Your task to perform on an android device: Open calendar and show me the fourth week of next month Image 0: 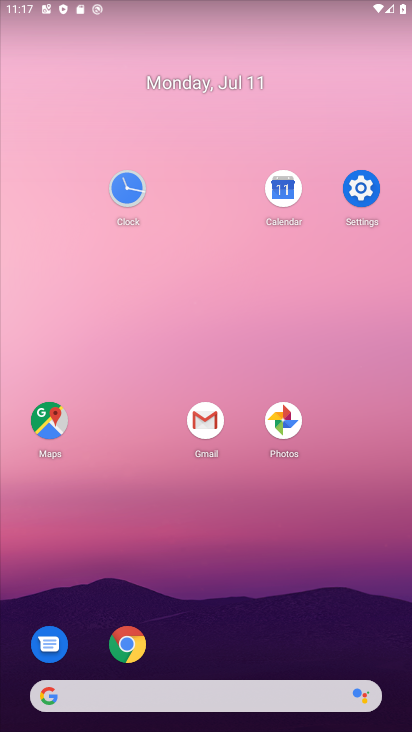
Step 0: click (288, 187)
Your task to perform on an android device: Open calendar and show me the fourth week of next month Image 1: 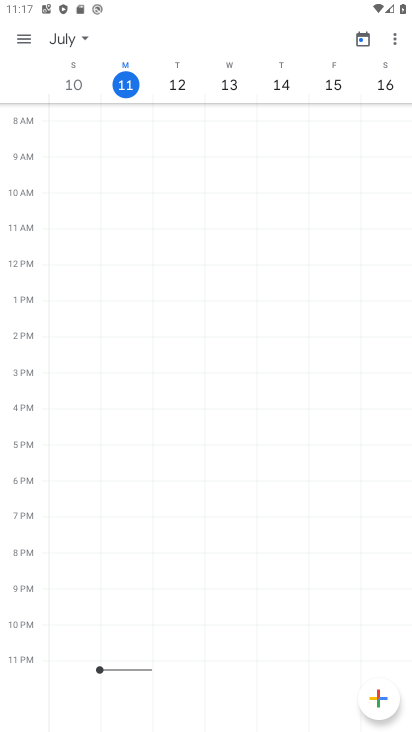
Step 1: click (84, 39)
Your task to perform on an android device: Open calendar and show me the fourth week of next month Image 2: 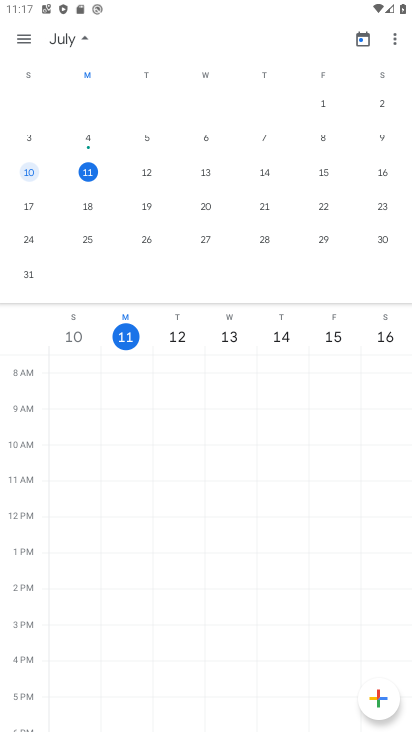
Step 2: drag from (396, 207) to (1, 167)
Your task to perform on an android device: Open calendar and show me the fourth week of next month Image 3: 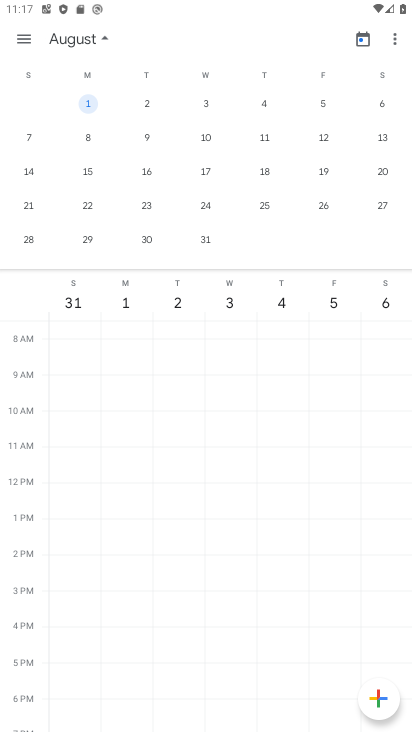
Step 3: click (24, 48)
Your task to perform on an android device: Open calendar and show me the fourth week of next month Image 4: 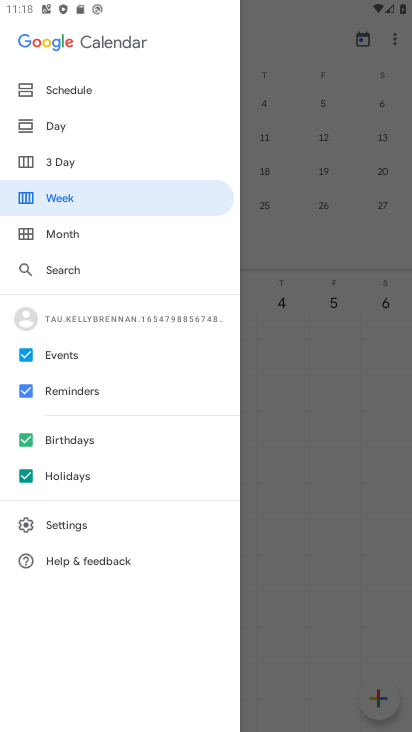
Step 4: click (107, 204)
Your task to perform on an android device: Open calendar and show me the fourth week of next month Image 5: 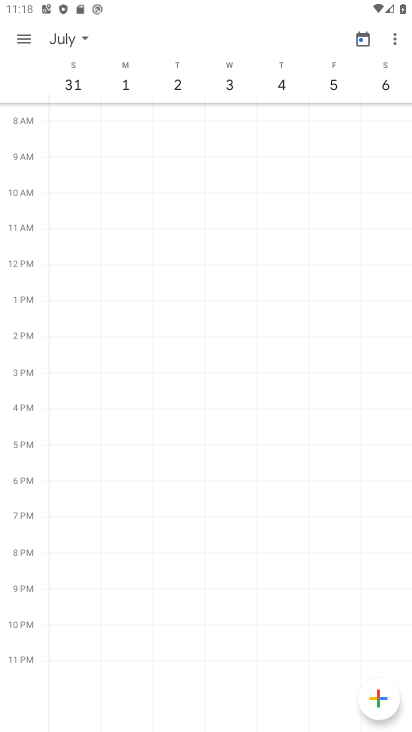
Step 5: task complete